Your task to perform on an android device: turn off notifications in google photos Image 0: 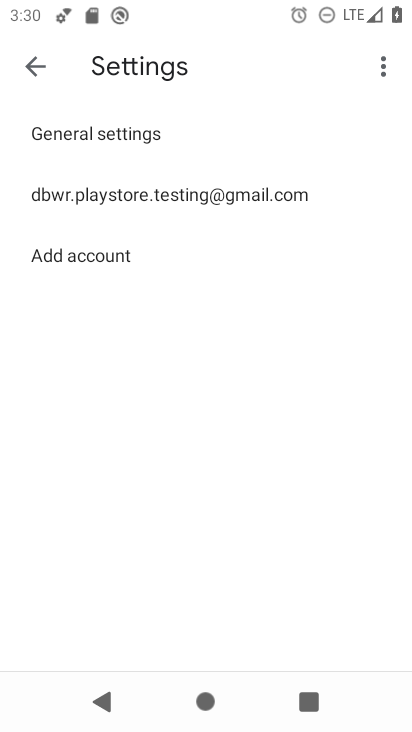
Step 0: press home button
Your task to perform on an android device: turn off notifications in google photos Image 1: 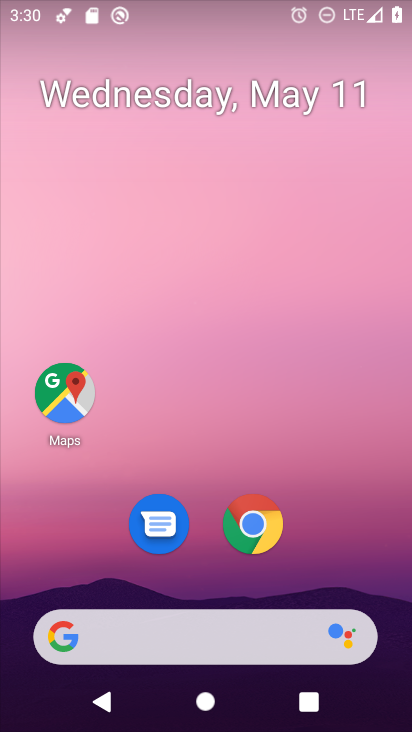
Step 1: drag from (300, 524) to (313, 55)
Your task to perform on an android device: turn off notifications in google photos Image 2: 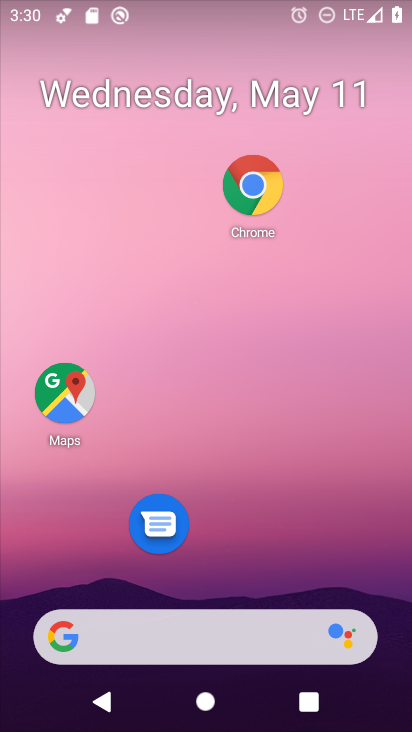
Step 2: drag from (334, 512) to (336, 39)
Your task to perform on an android device: turn off notifications in google photos Image 3: 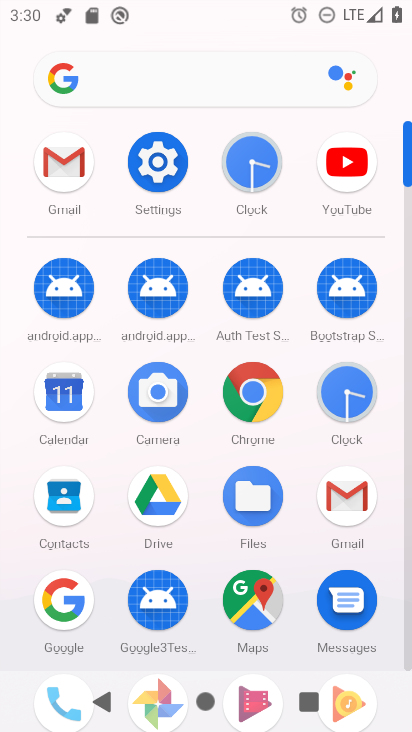
Step 3: click (163, 163)
Your task to perform on an android device: turn off notifications in google photos Image 4: 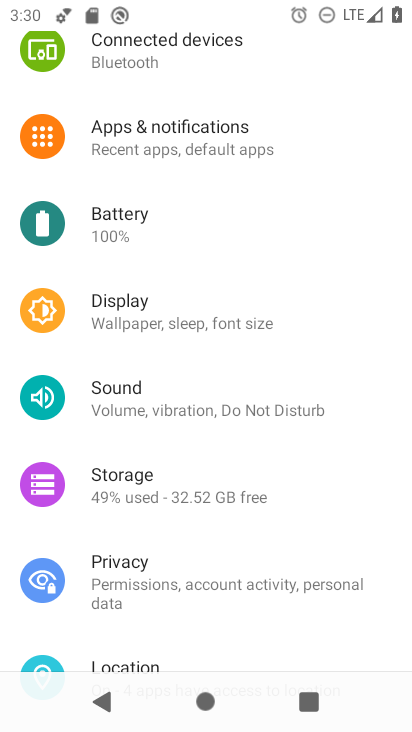
Step 4: click (208, 138)
Your task to perform on an android device: turn off notifications in google photos Image 5: 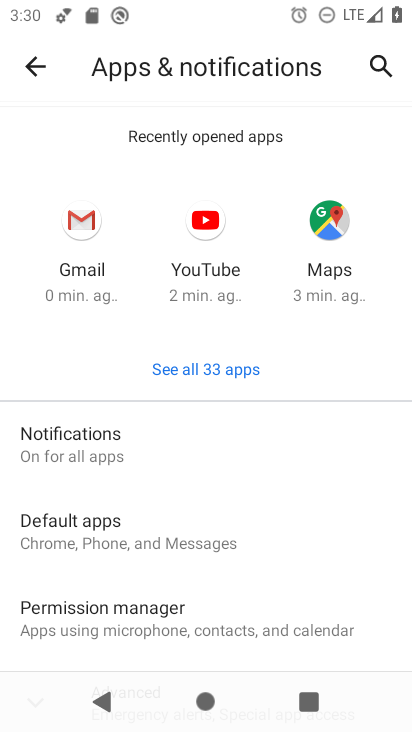
Step 5: click (232, 361)
Your task to perform on an android device: turn off notifications in google photos Image 6: 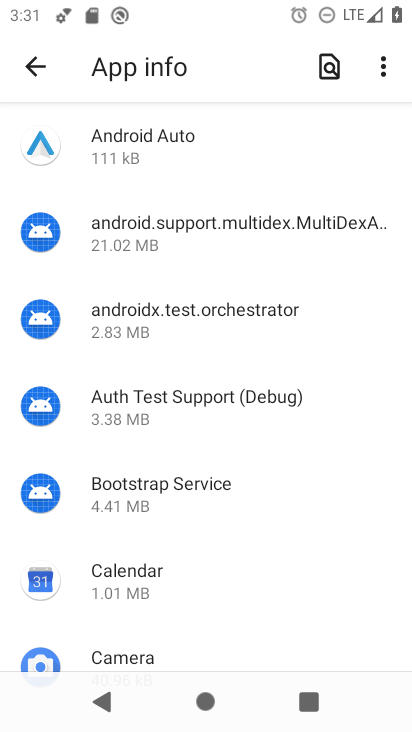
Step 6: drag from (254, 431) to (285, 126)
Your task to perform on an android device: turn off notifications in google photos Image 7: 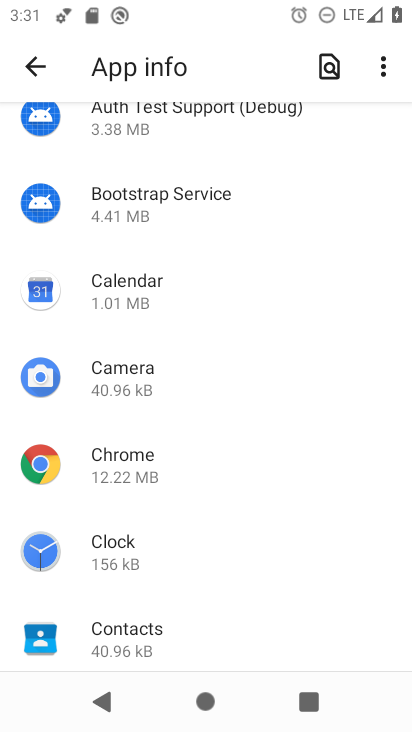
Step 7: click (234, 261)
Your task to perform on an android device: turn off notifications in google photos Image 8: 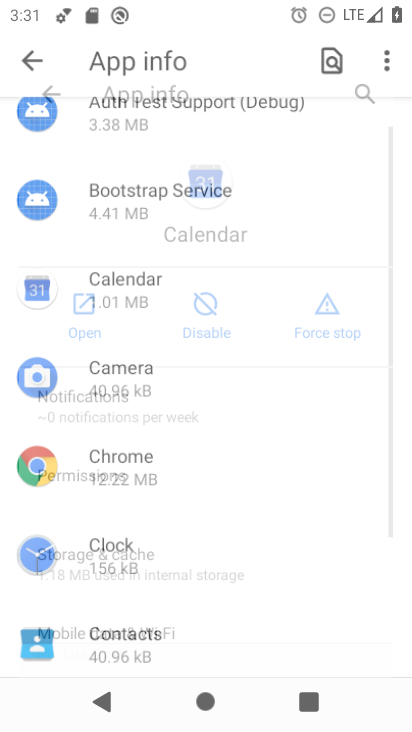
Step 8: drag from (233, 453) to (258, 168)
Your task to perform on an android device: turn off notifications in google photos Image 9: 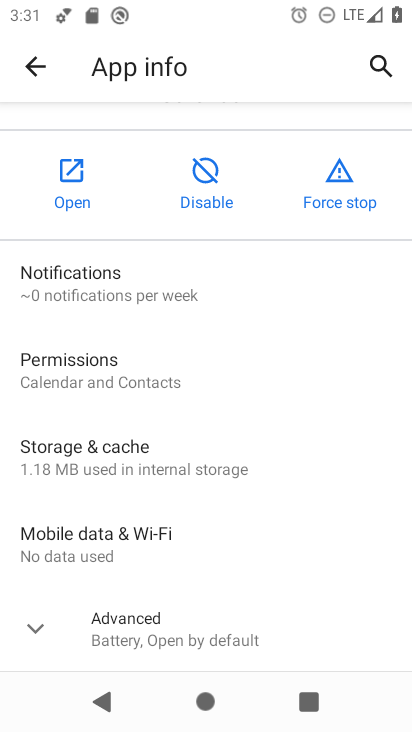
Step 9: click (35, 57)
Your task to perform on an android device: turn off notifications in google photos Image 10: 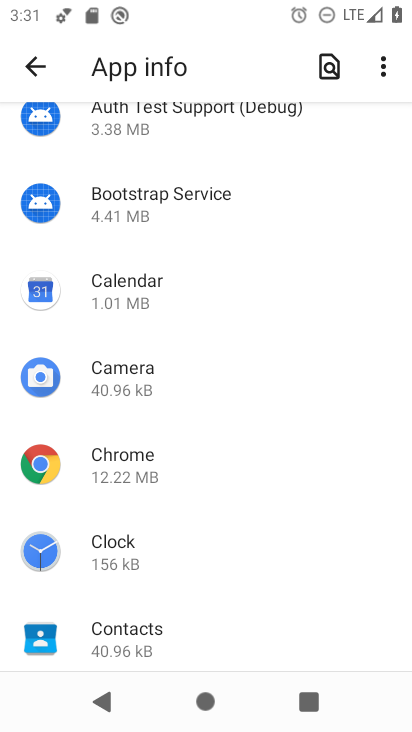
Step 10: drag from (227, 481) to (203, 106)
Your task to perform on an android device: turn off notifications in google photos Image 11: 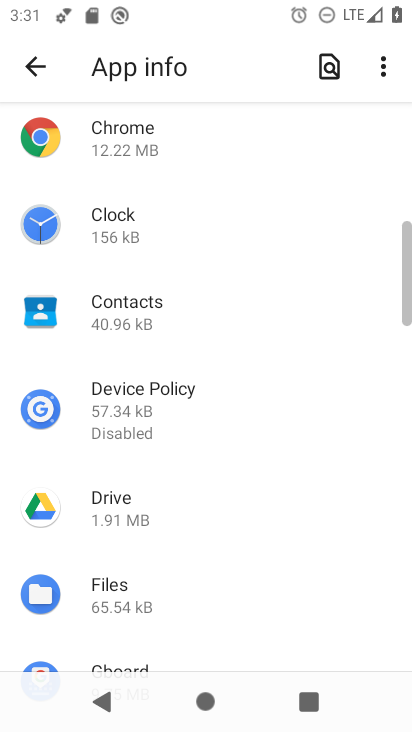
Step 11: drag from (218, 461) to (191, 166)
Your task to perform on an android device: turn off notifications in google photos Image 12: 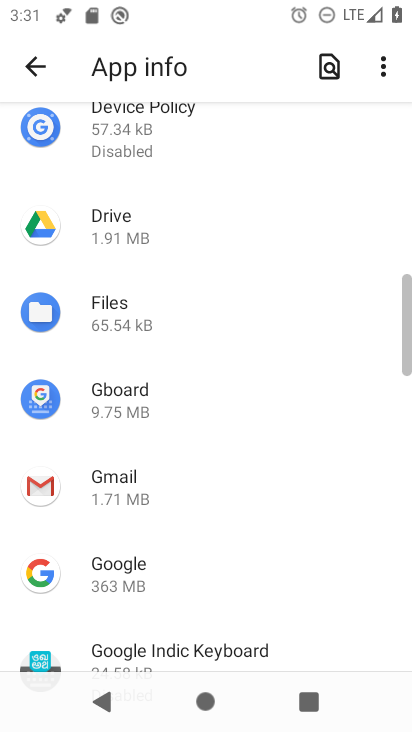
Step 12: drag from (188, 488) to (179, 125)
Your task to perform on an android device: turn off notifications in google photos Image 13: 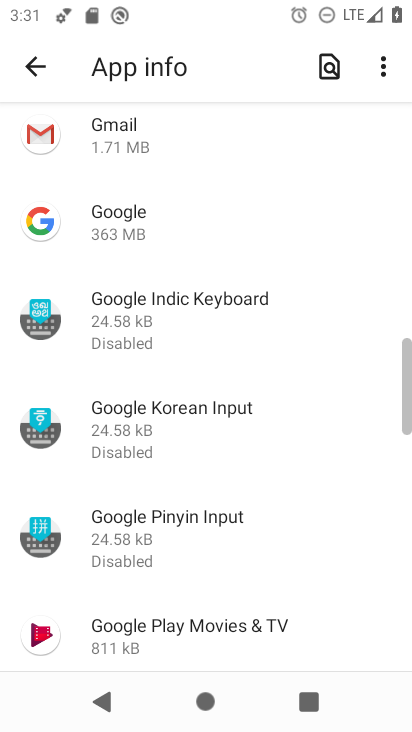
Step 13: drag from (218, 454) to (221, 137)
Your task to perform on an android device: turn off notifications in google photos Image 14: 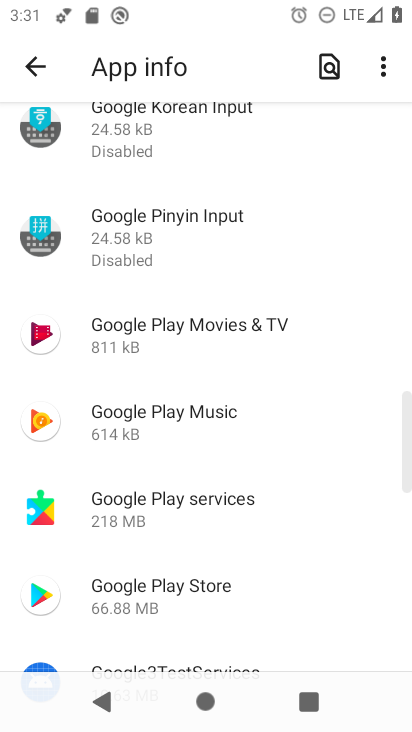
Step 14: drag from (221, 450) to (231, 115)
Your task to perform on an android device: turn off notifications in google photos Image 15: 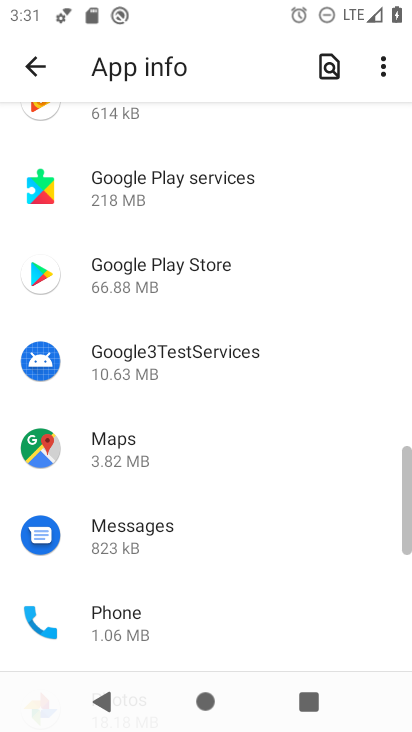
Step 15: drag from (204, 479) to (191, 103)
Your task to perform on an android device: turn off notifications in google photos Image 16: 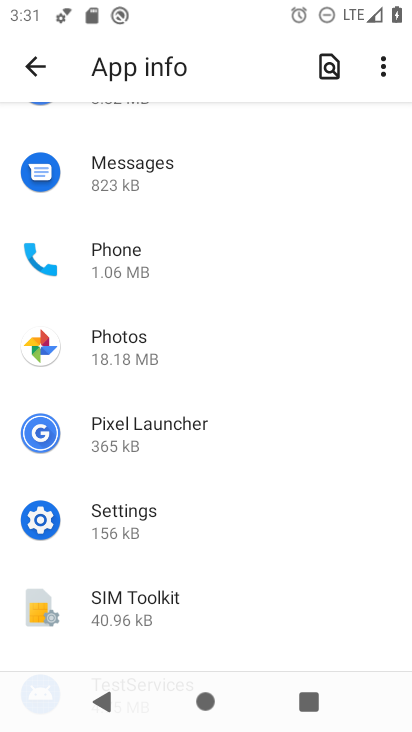
Step 16: click (147, 345)
Your task to perform on an android device: turn off notifications in google photos Image 17: 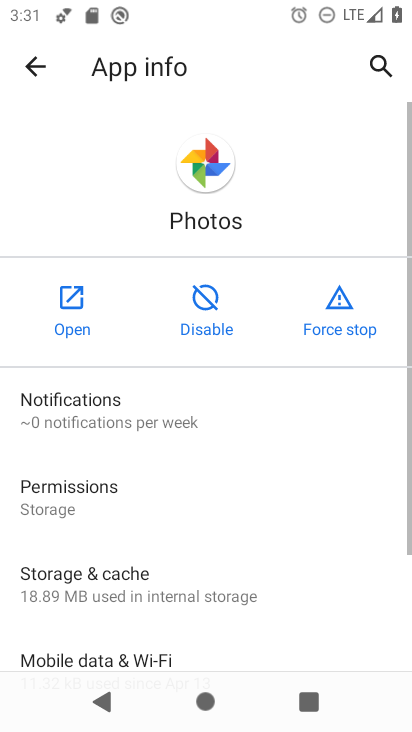
Step 17: click (125, 412)
Your task to perform on an android device: turn off notifications in google photos Image 18: 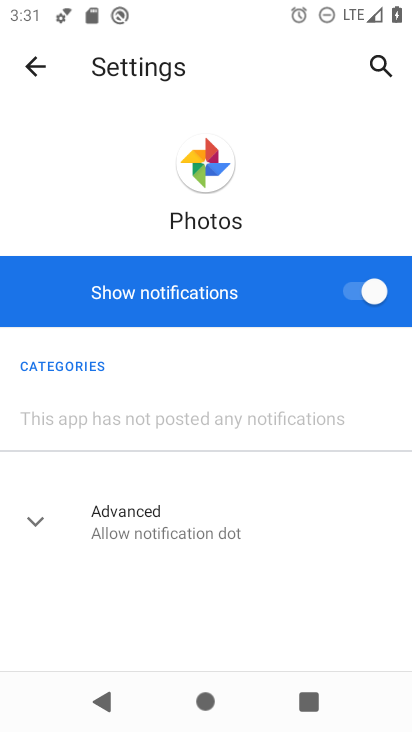
Step 18: click (354, 289)
Your task to perform on an android device: turn off notifications in google photos Image 19: 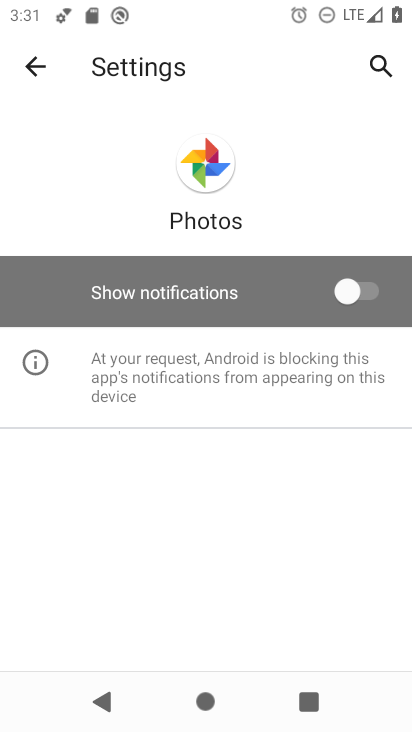
Step 19: task complete